Your task to perform on an android device: install app "Venmo" Image 0: 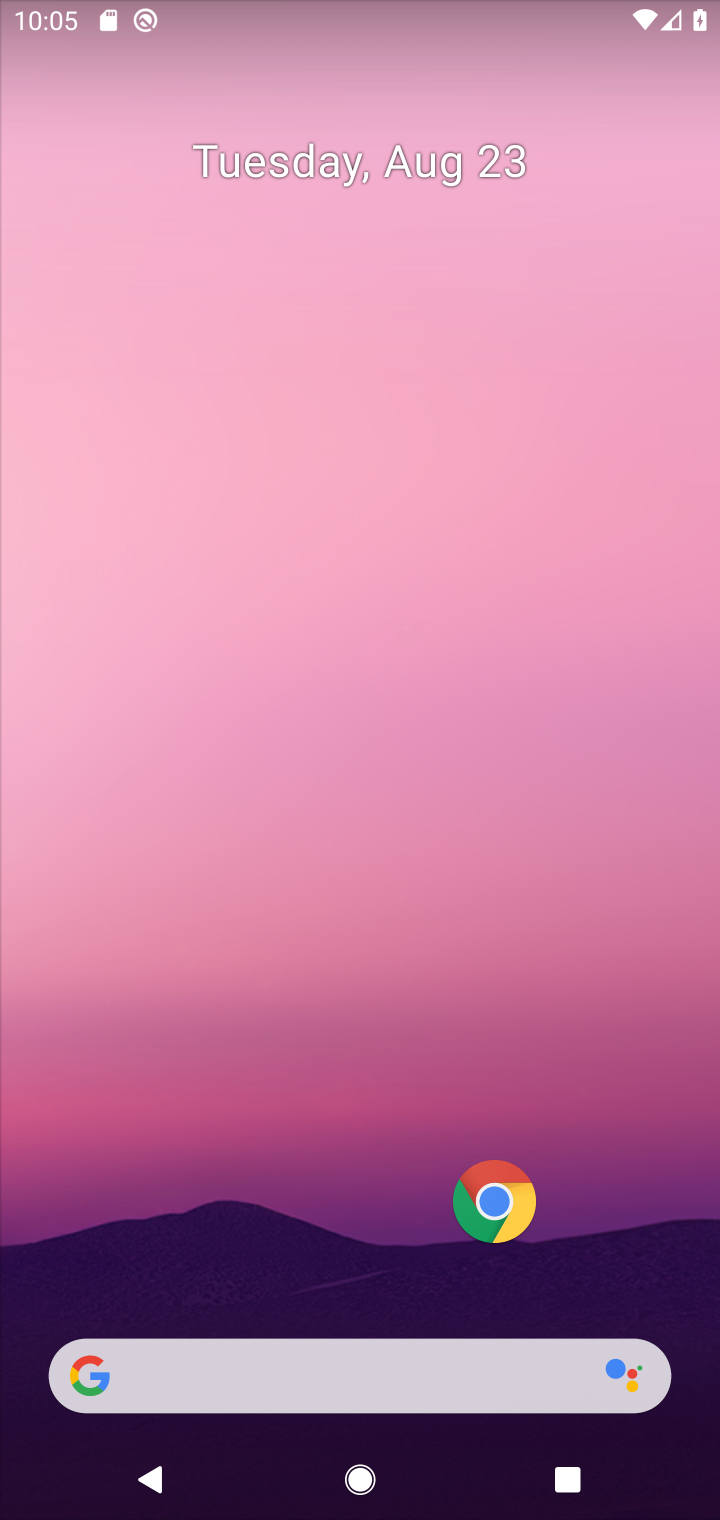
Step 0: drag from (219, 983) to (296, 596)
Your task to perform on an android device: install app "Venmo" Image 1: 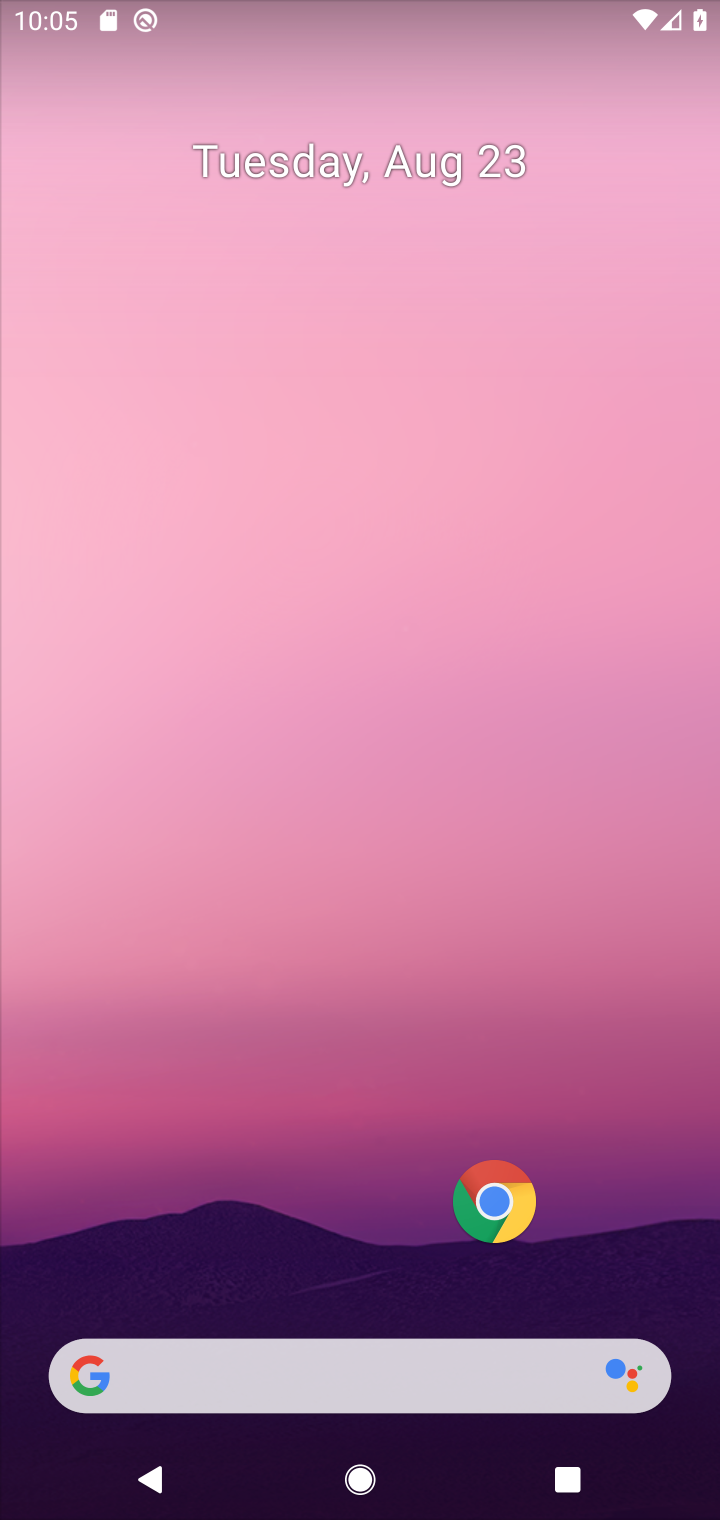
Step 1: drag from (317, 1173) to (345, 245)
Your task to perform on an android device: install app "Venmo" Image 2: 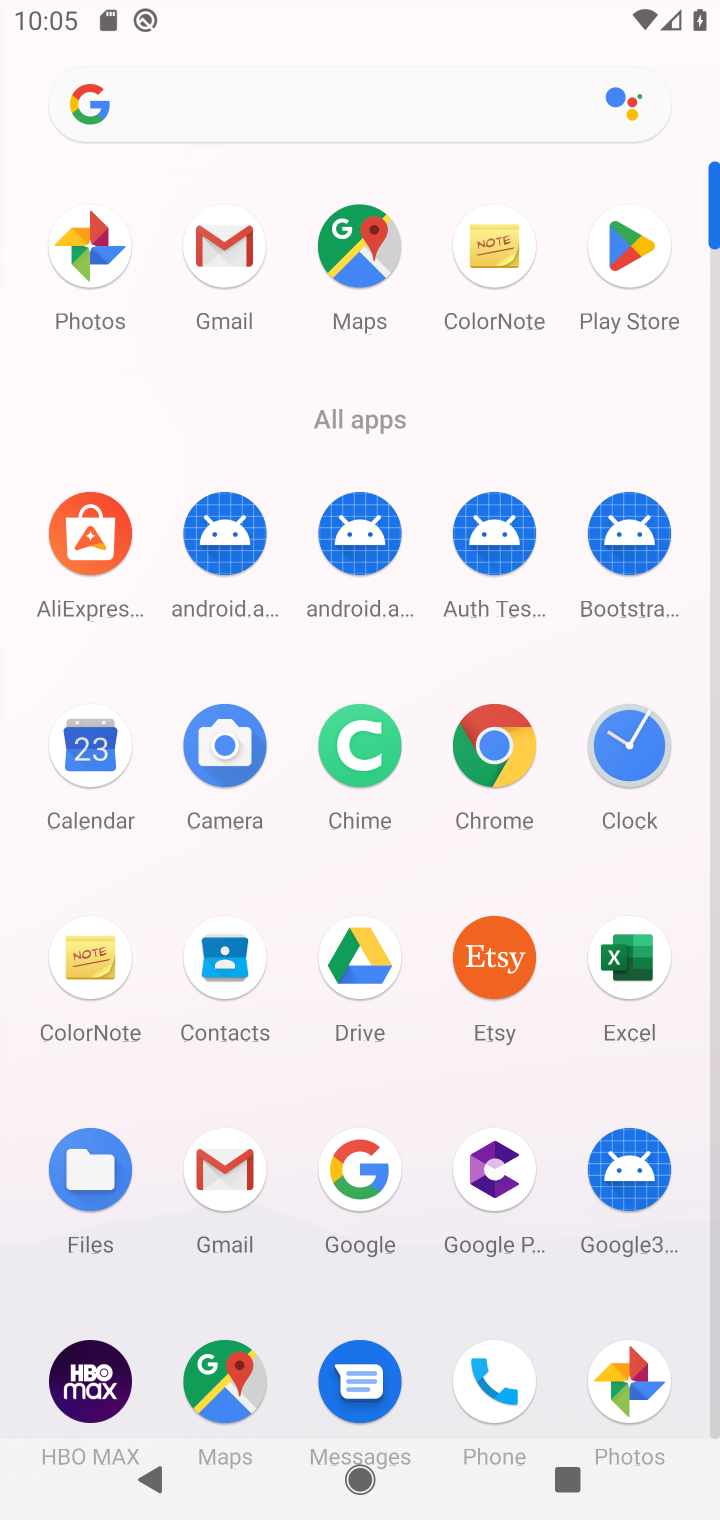
Step 2: click (614, 244)
Your task to perform on an android device: install app "Venmo" Image 3: 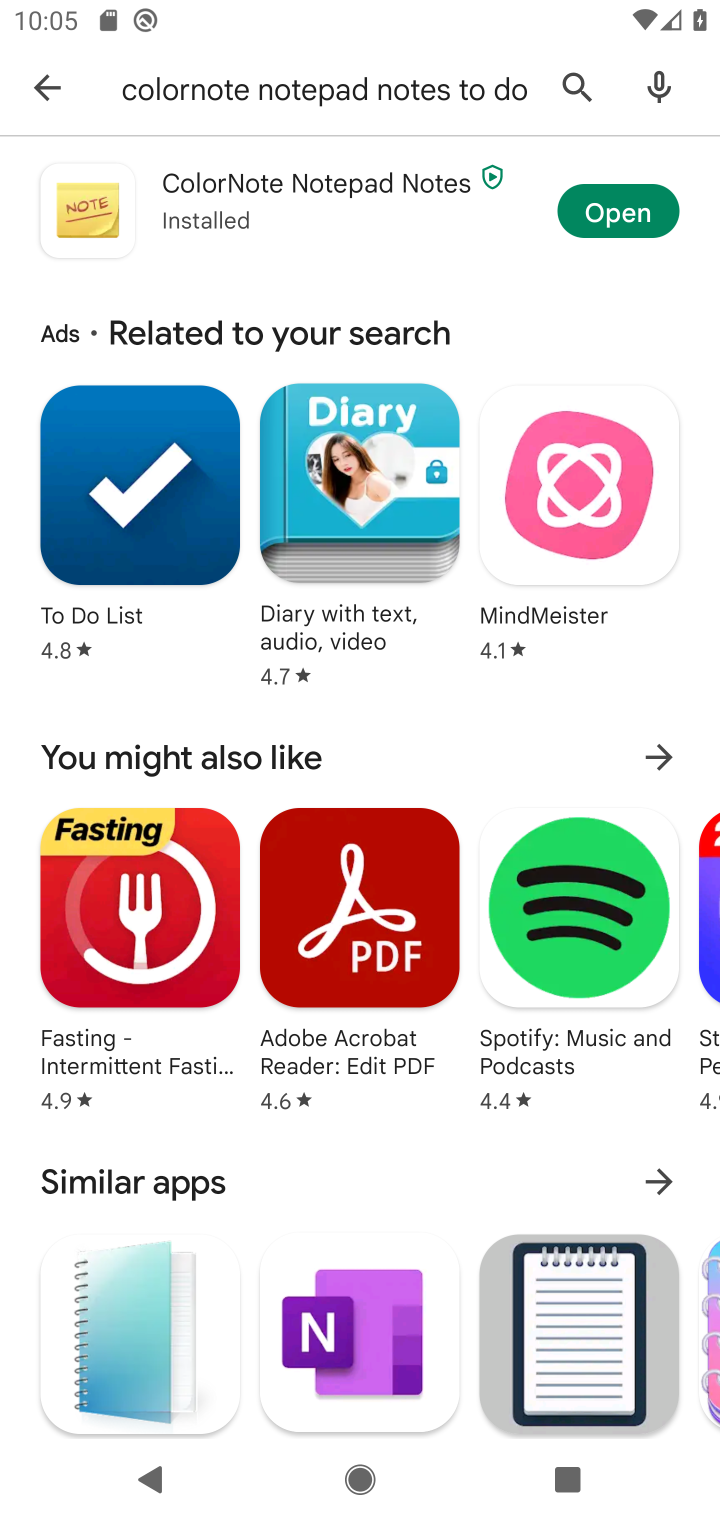
Step 3: click (36, 101)
Your task to perform on an android device: install app "Venmo" Image 4: 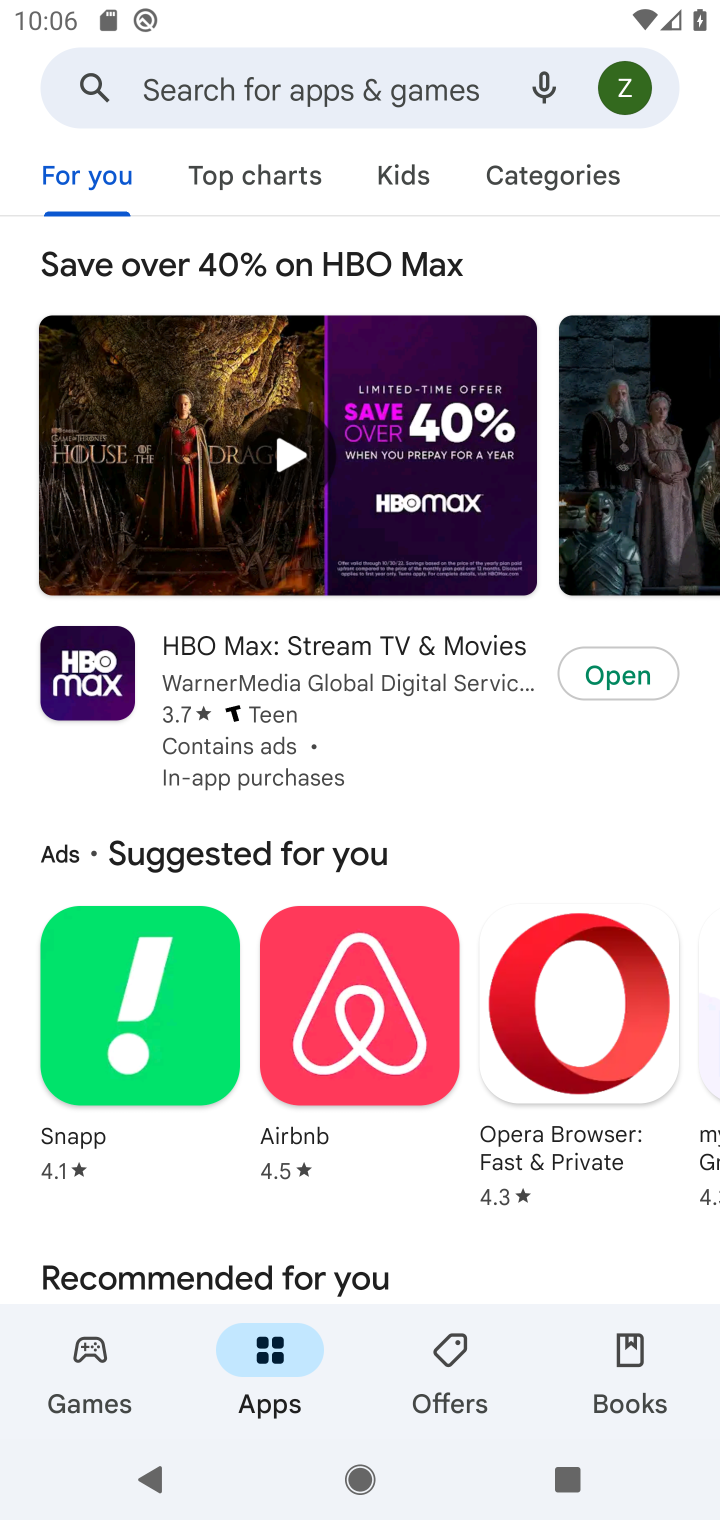
Step 4: click (296, 69)
Your task to perform on an android device: install app "Venmo" Image 5: 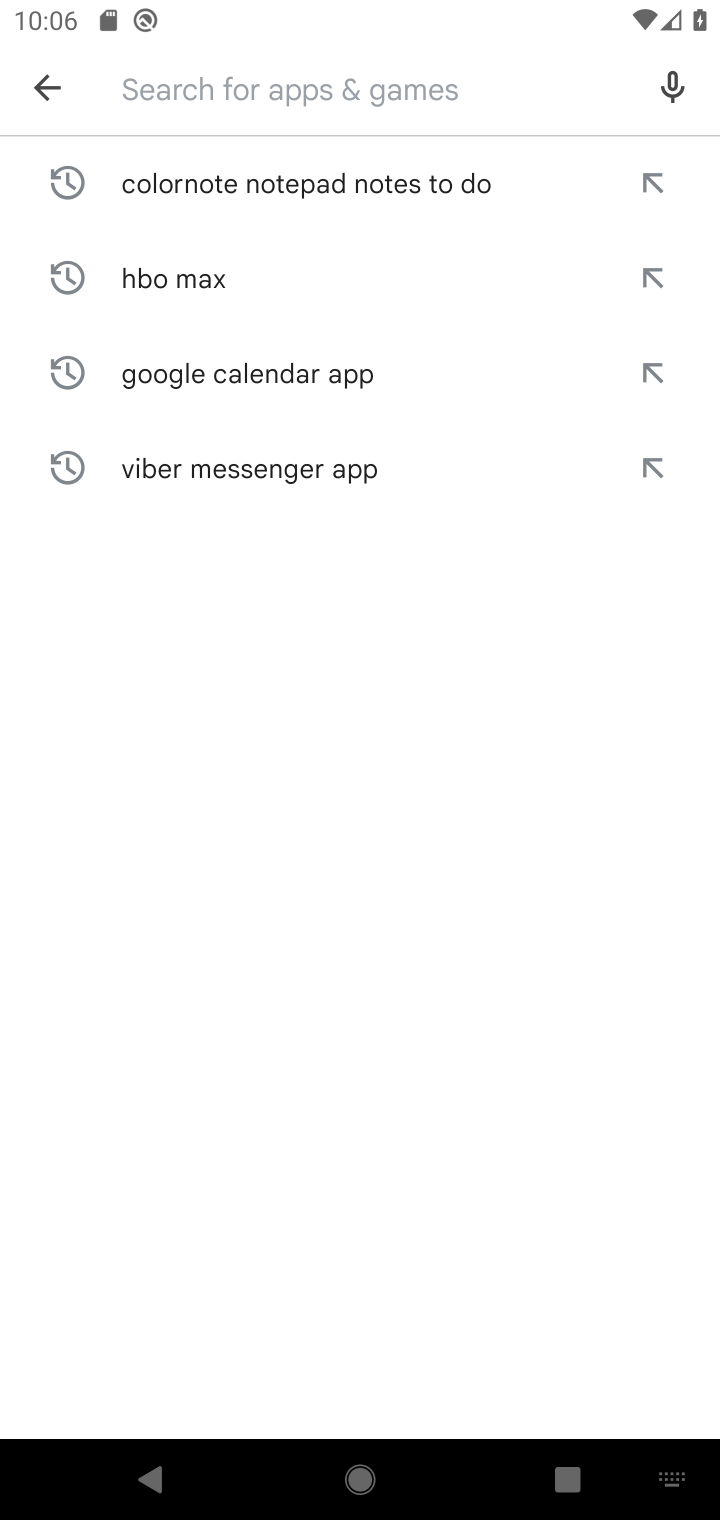
Step 5: type "Venmo "
Your task to perform on an android device: install app "Venmo" Image 6: 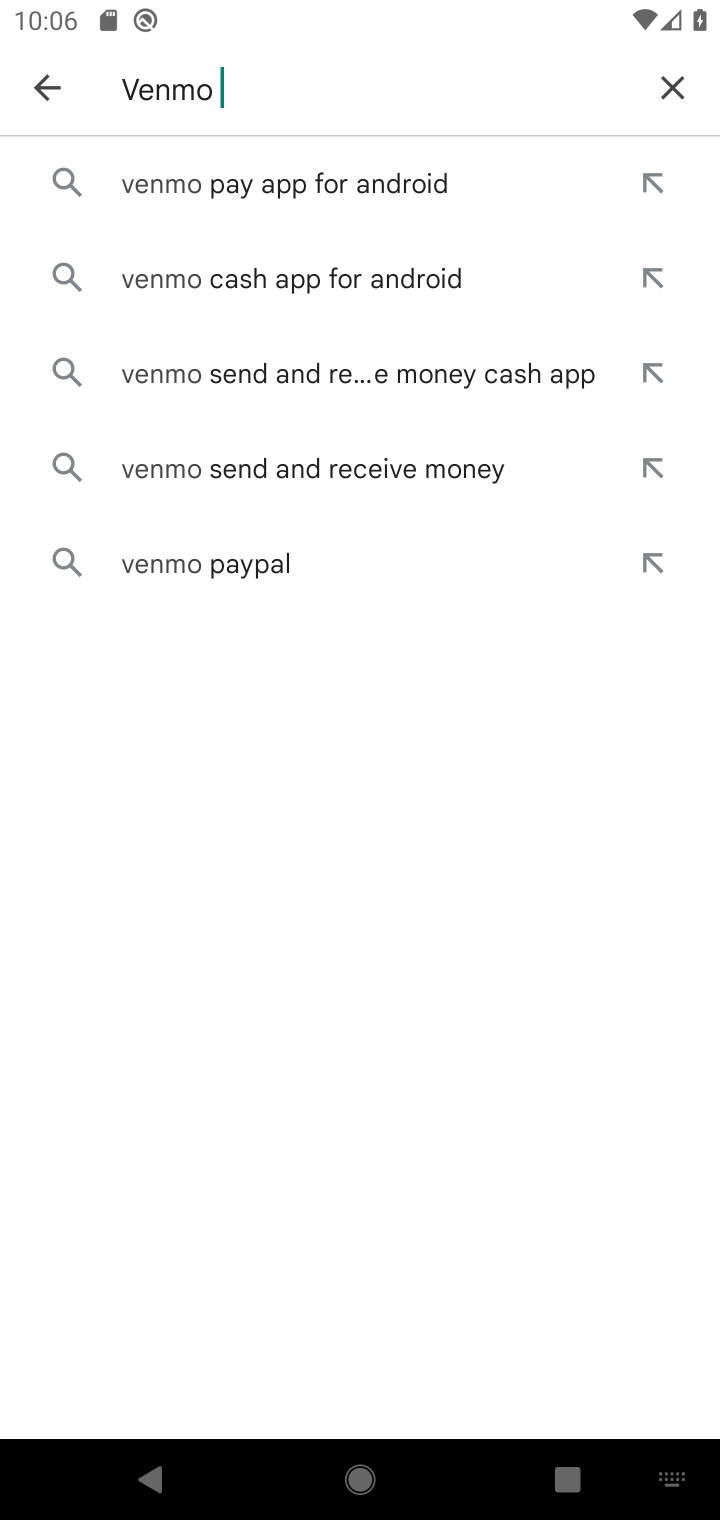
Step 6: click (221, 167)
Your task to perform on an android device: install app "Venmo" Image 7: 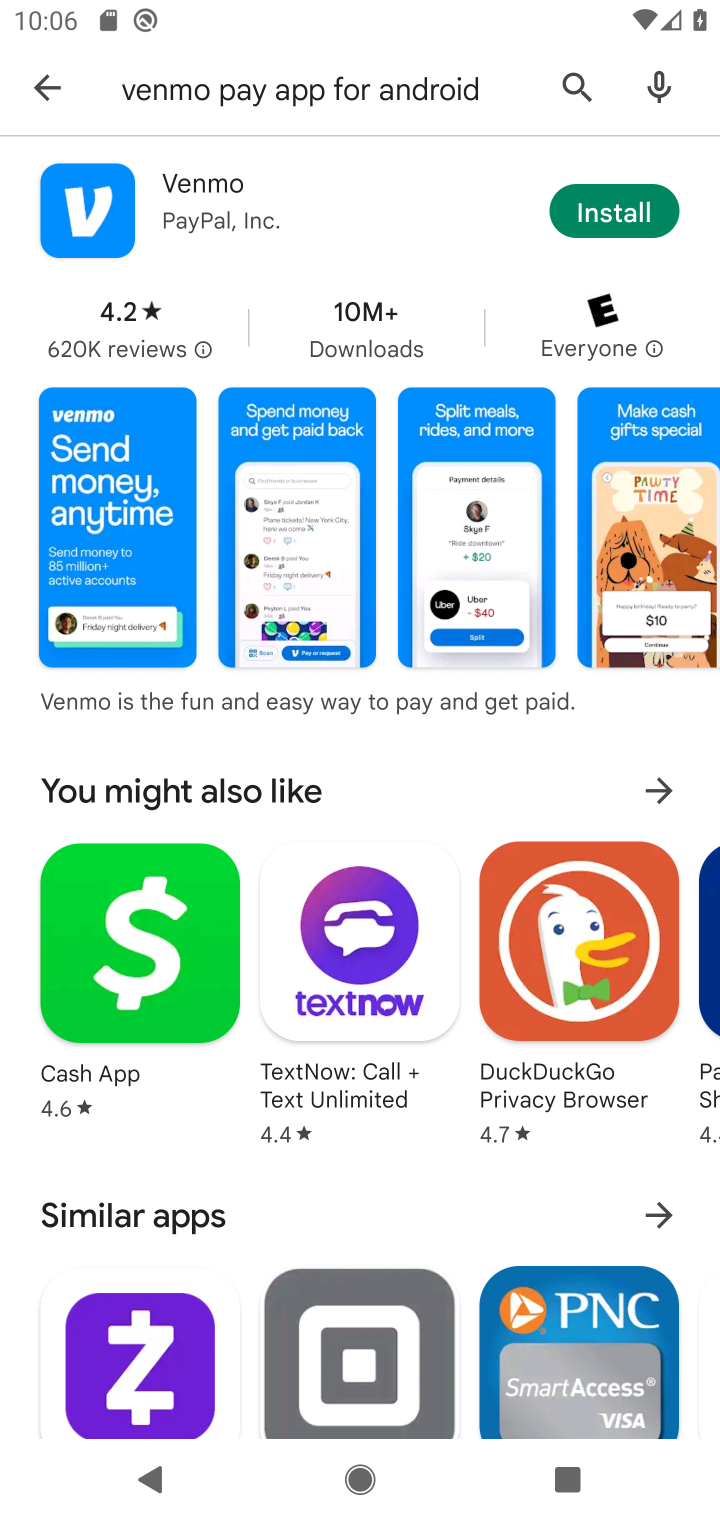
Step 7: click (633, 189)
Your task to perform on an android device: install app "Venmo" Image 8: 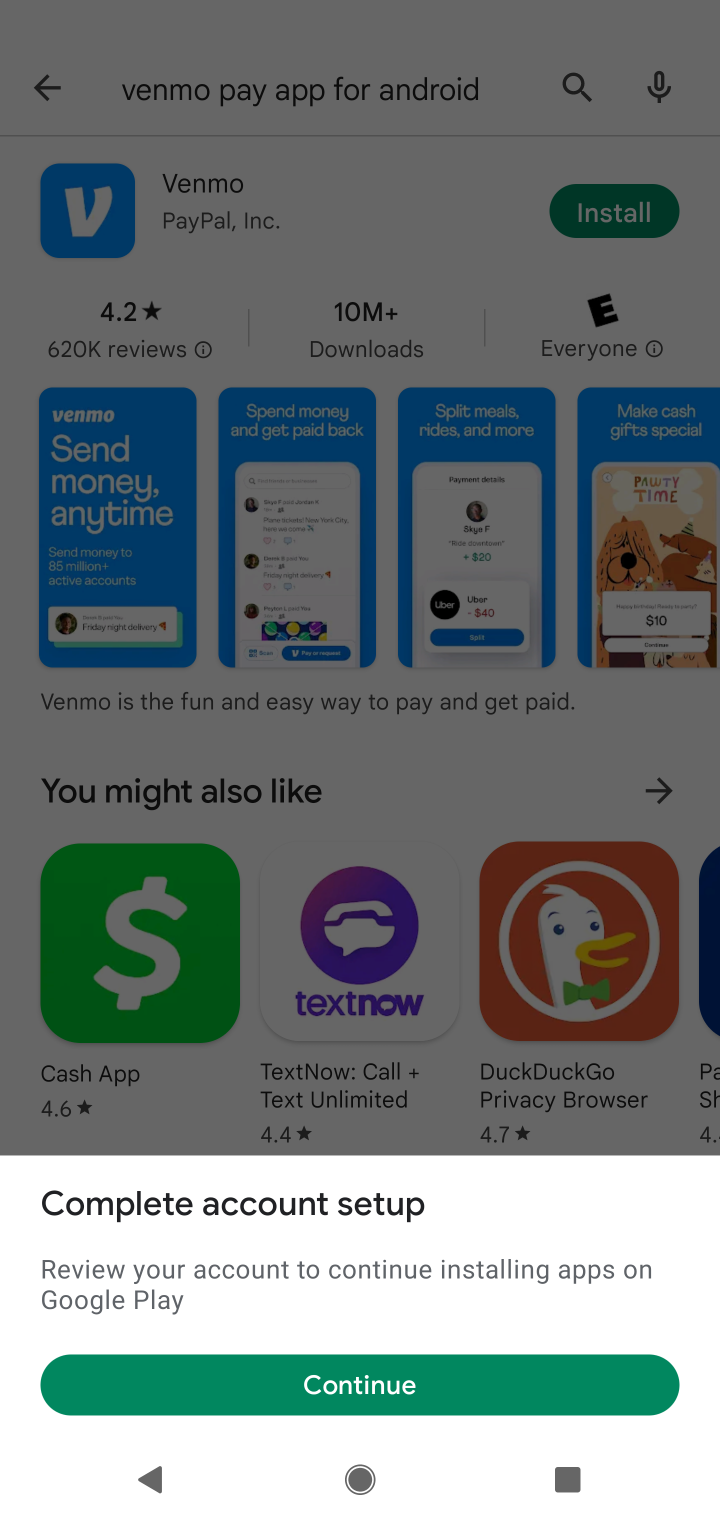
Step 8: task complete